Your task to perform on an android device: open chrome and create a bookmark for the current page Image 0: 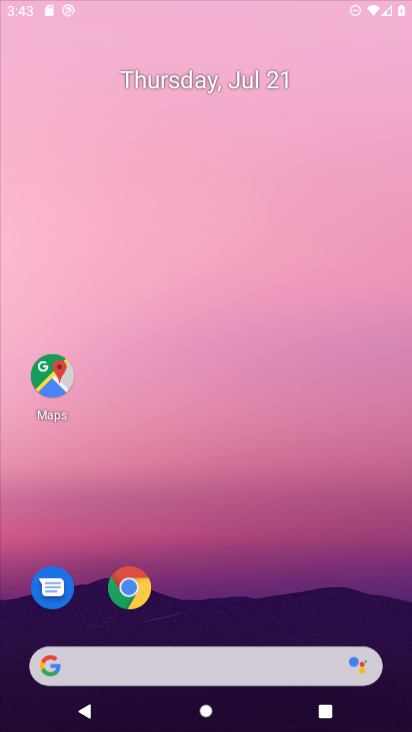
Step 0: press home button
Your task to perform on an android device: open chrome and create a bookmark for the current page Image 1: 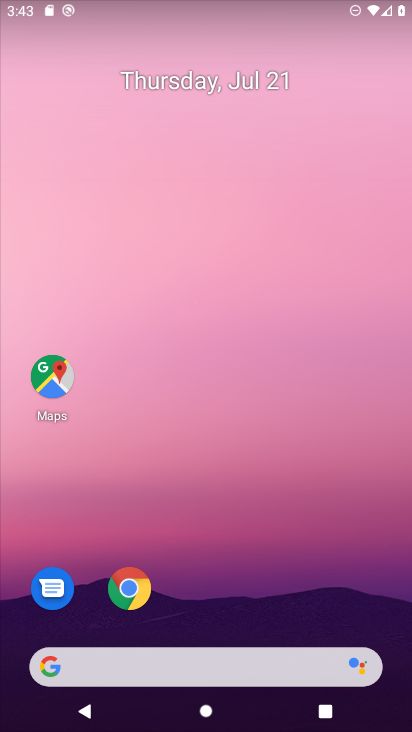
Step 1: drag from (253, 627) to (283, 12)
Your task to perform on an android device: open chrome and create a bookmark for the current page Image 2: 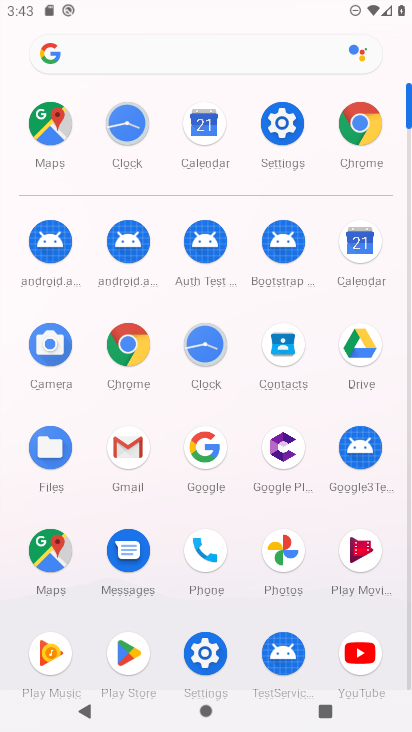
Step 2: click (19, 523)
Your task to perform on an android device: open chrome and create a bookmark for the current page Image 3: 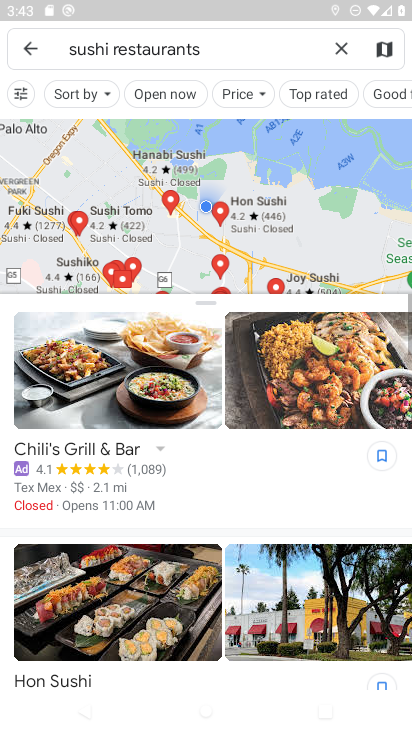
Step 3: press home button
Your task to perform on an android device: open chrome and create a bookmark for the current page Image 4: 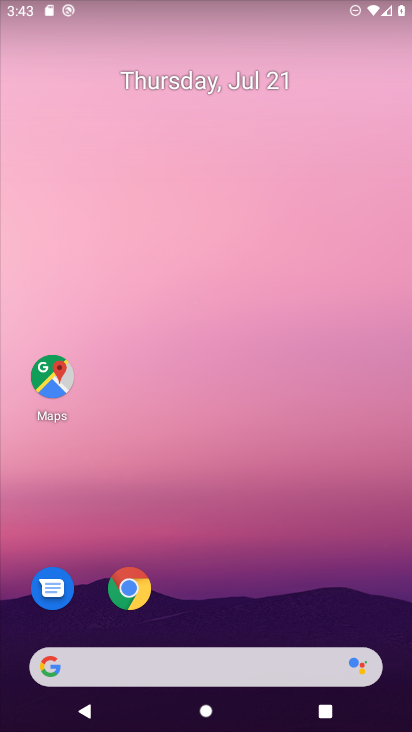
Step 4: click (130, 589)
Your task to perform on an android device: open chrome and create a bookmark for the current page Image 5: 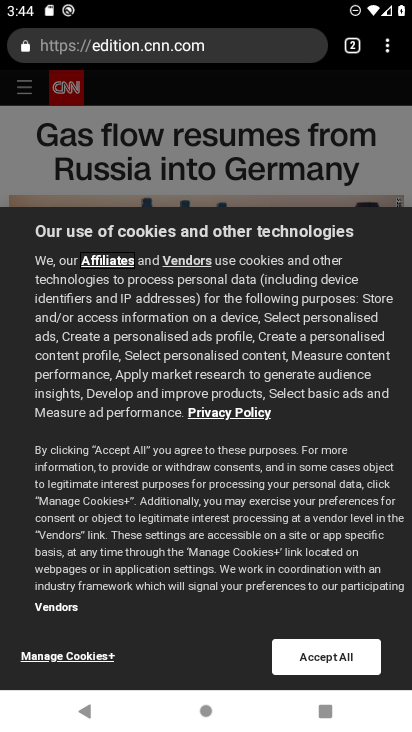
Step 5: click (394, 48)
Your task to perform on an android device: open chrome and create a bookmark for the current page Image 6: 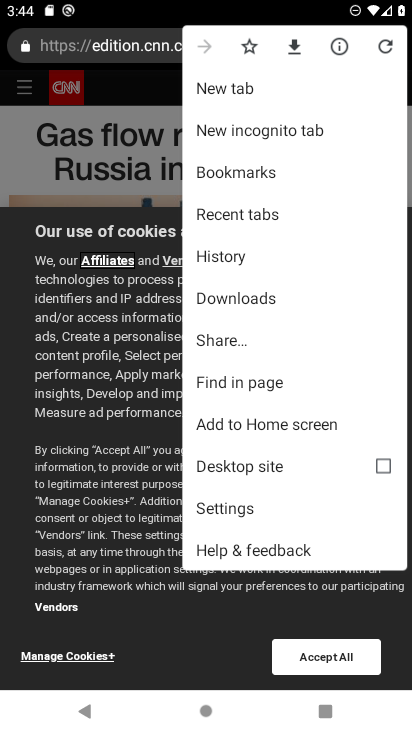
Step 6: click (256, 45)
Your task to perform on an android device: open chrome and create a bookmark for the current page Image 7: 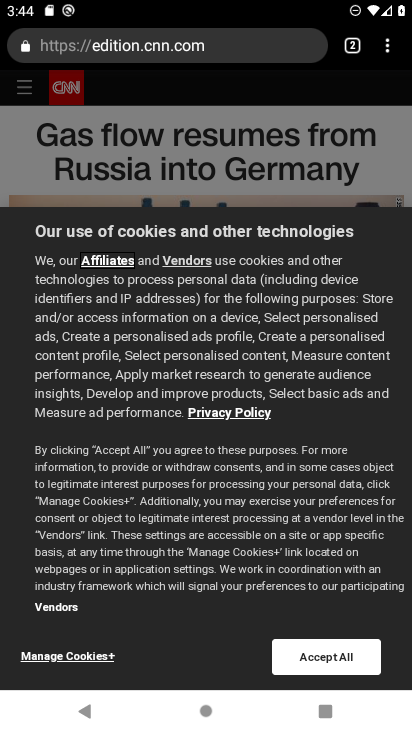
Step 7: task complete